Your task to perform on an android device: move a message to another label in the gmail app Image 0: 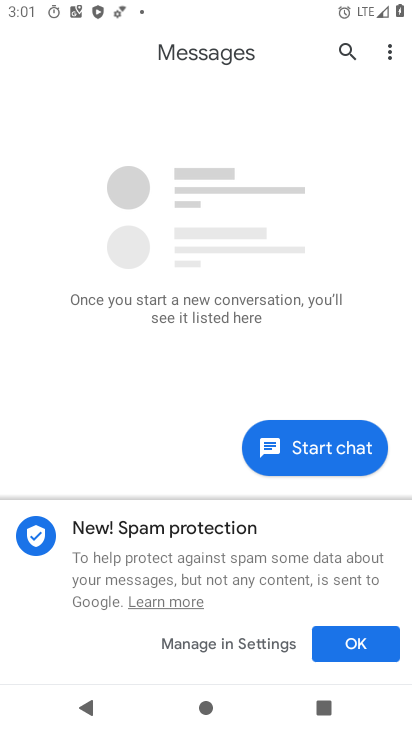
Step 0: press home button
Your task to perform on an android device: move a message to another label in the gmail app Image 1: 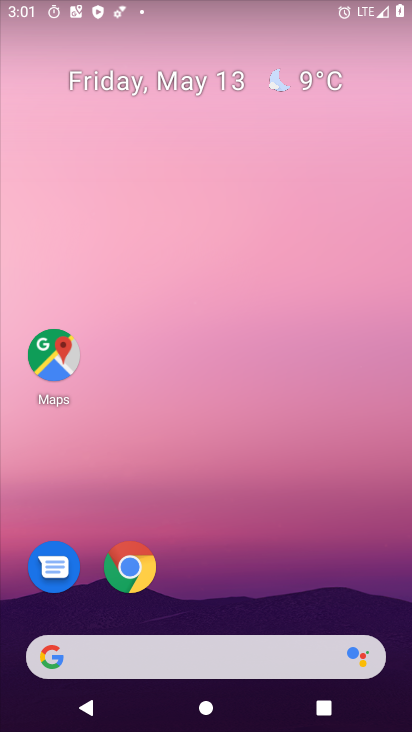
Step 1: drag from (198, 509) to (13, 266)
Your task to perform on an android device: move a message to another label in the gmail app Image 2: 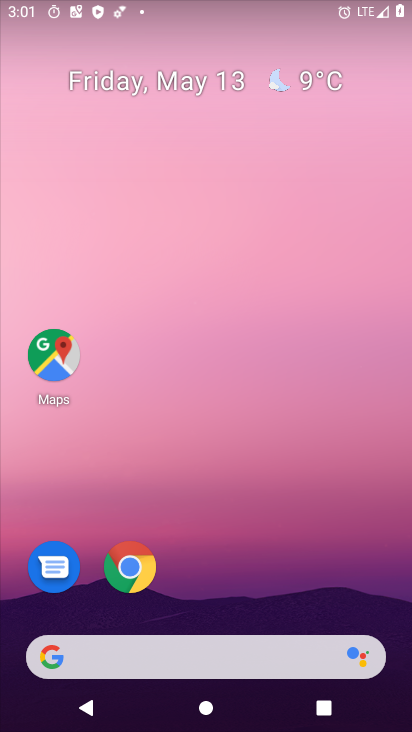
Step 2: drag from (245, 658) to (408, 166)
Your task to perform on an android device: move a message to another label in the gmail app Image 3: 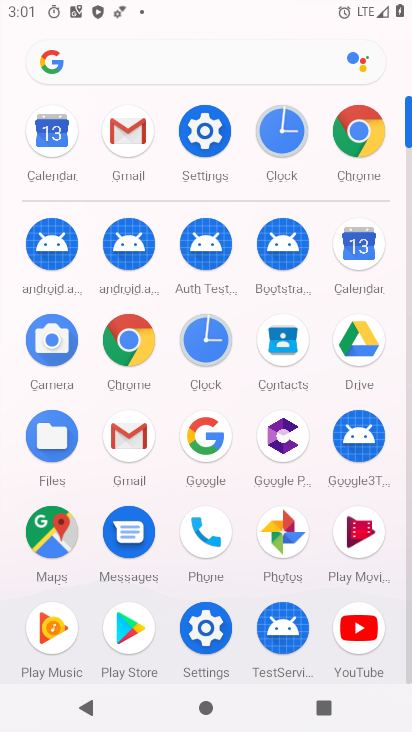
Step 3: click (123, 414)
Your task to perform on an android device: move a message to another label in the gmail app Image 4: 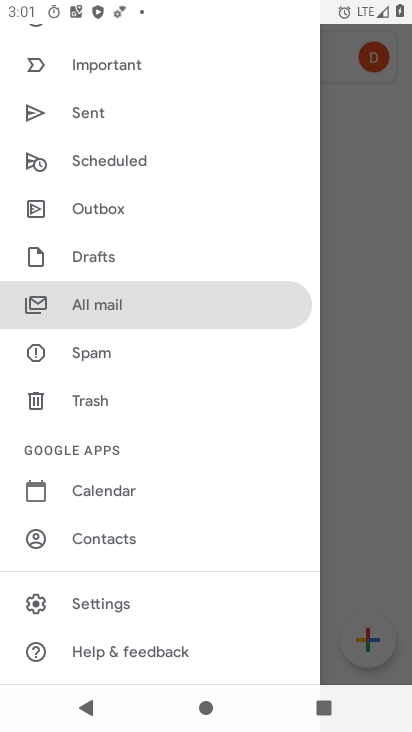
Step 4: click (135, 311)
Your task to perform on an android device: move a message to another label in the gmail app Image 5: 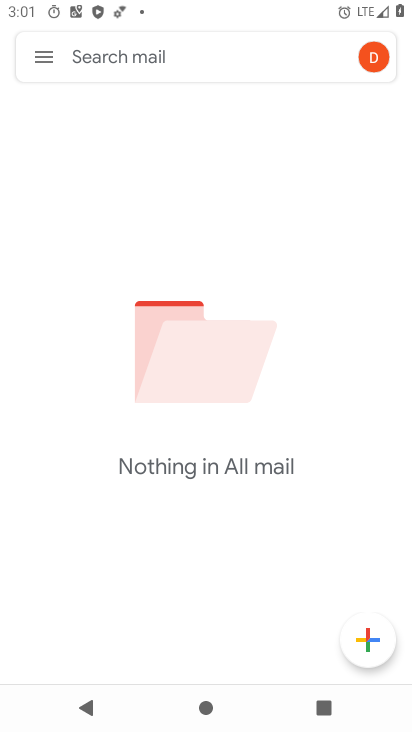
Step 5: task complete